Your task to perform on an android device: Go to Reddit.com Image 0: 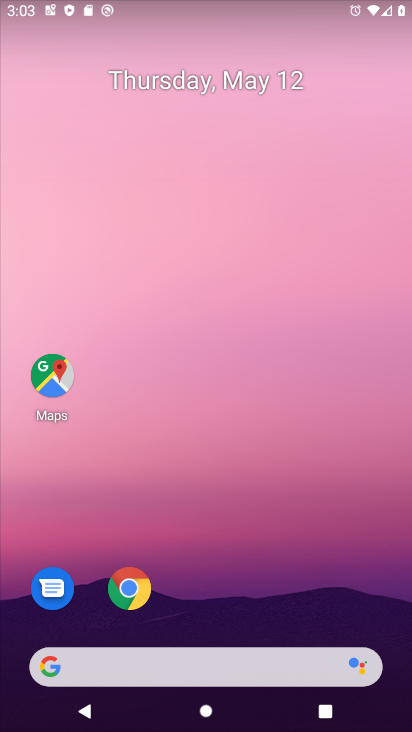
Step 0: drag from (308, 571) to (211, 7)
Your task to perform on an android device: Go to Reddit.com Image 1: 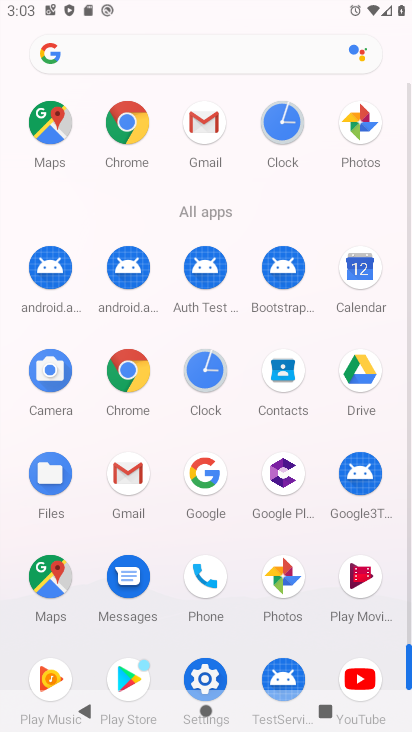
Step 1: drag from (5, 548) to (13, 255)
Your task to perform on an android device: Go to Reddit.com Image 2: 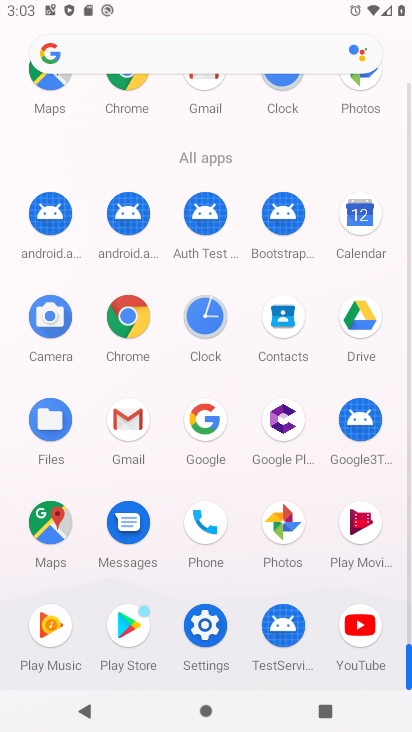
Step 2: click (126, 310)
Your task to perform on an android device: Go to Reddit.com Image 3: 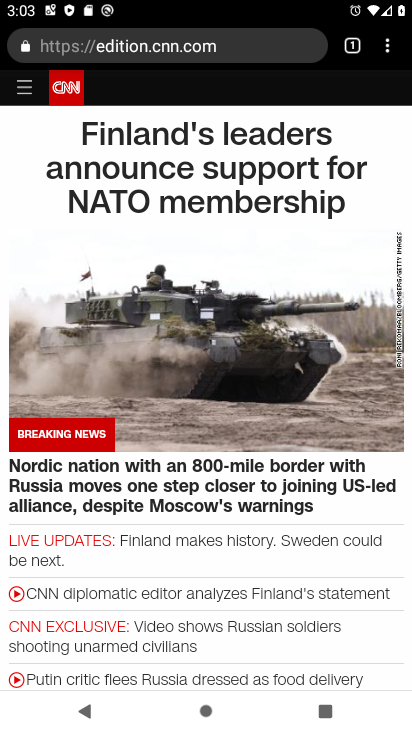
Step 3: click (181, 44)
Your task to perform on an android device: Go to Reddit.com Image 4: 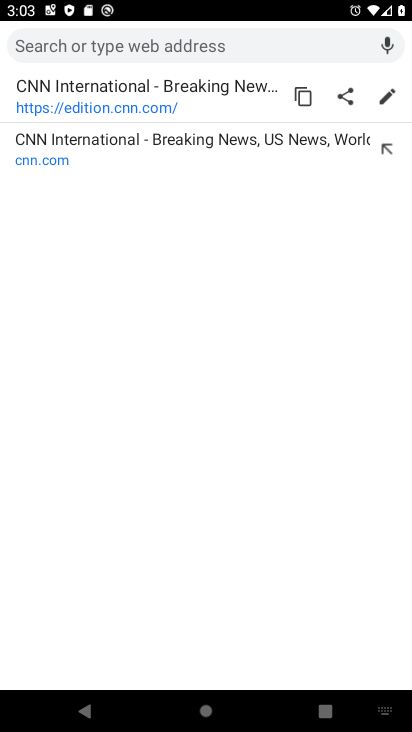
Step 4: type "Reddit.com"
Your task to perform on an android device: Go to Reddit.com Image 5: 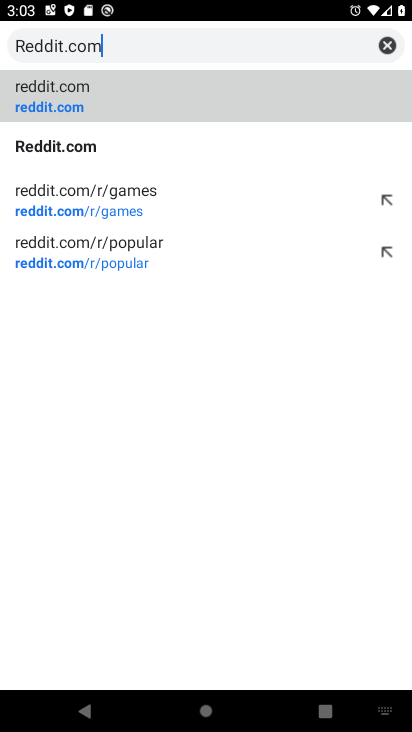
Step 5: click (143, 96)
Your task to perform on an android device: Go to Reddit.com Image 6: 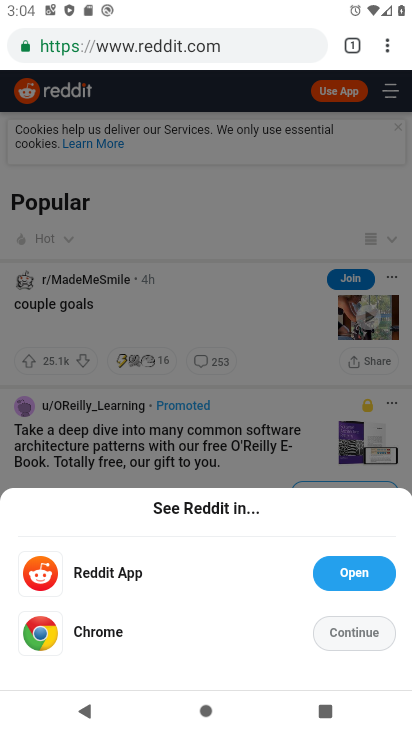
Step 6: task complete